Your task to perform on an android device: turn on showing notifications on the lock screen Image 0: 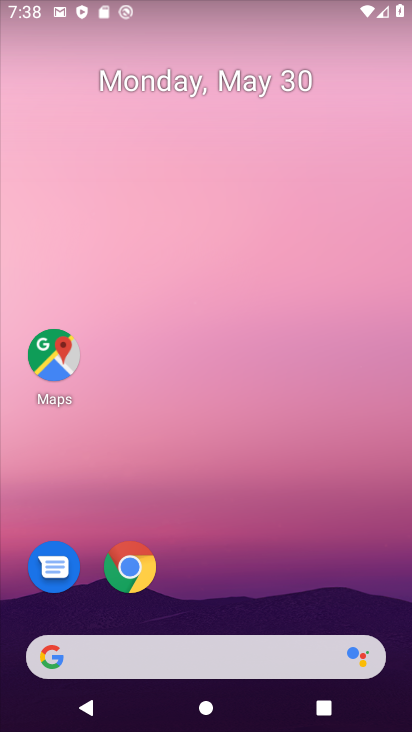
Step 0: drag from (280, 611) to (280, 298)
Your task to perform on an android device: turn on showing notifications on the lock screen Image 1: 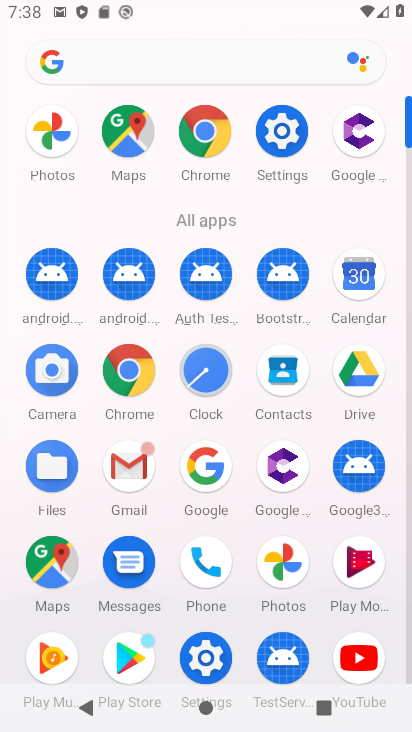
Step 1: task complete